Your task to perform on an android device: turn on translation in the chrome app Image 0: 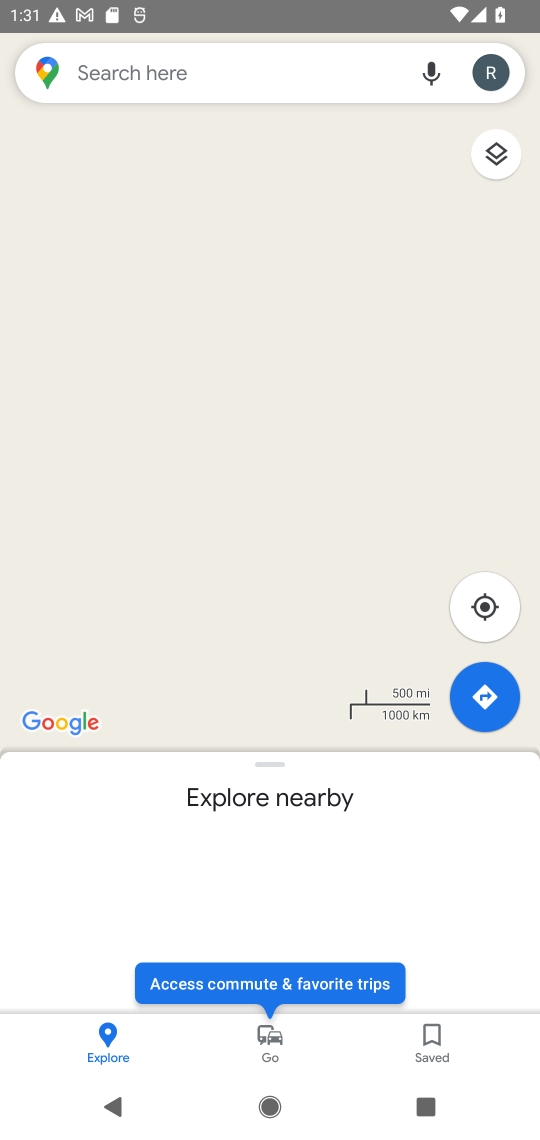
Step 0: press home button
Your task to perform on an android device: turn on translation in the chrome app Image 1: 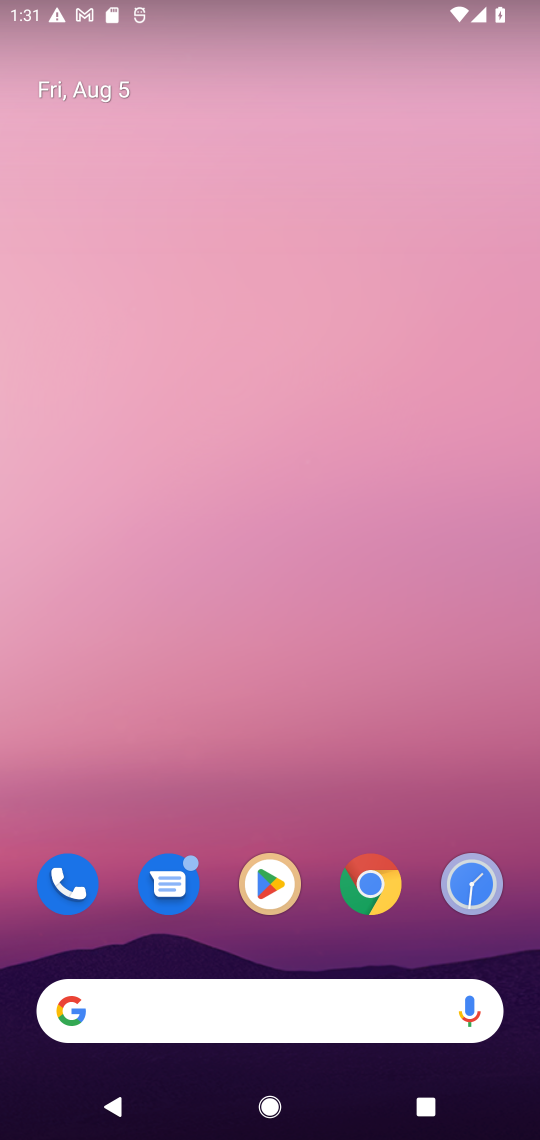
Step 1: drag from (409, 756) to (276, 14)
Your task to perform on an android device: turn on translation in the chrome app Image 2: 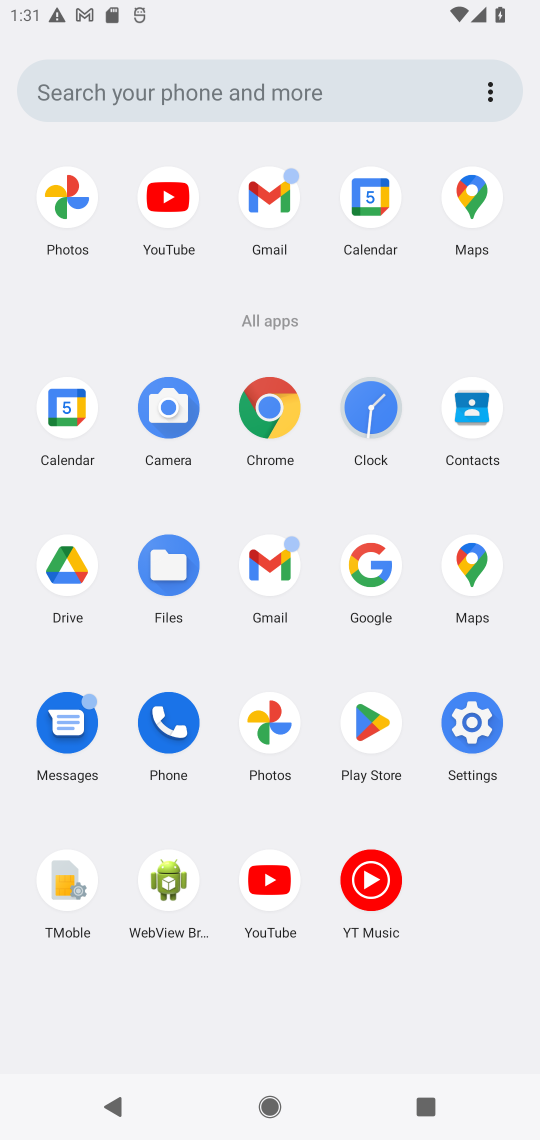
Step 2: click (257, 414)
Your task to perform on an android device: turn on translation in the chrome app Image 3: 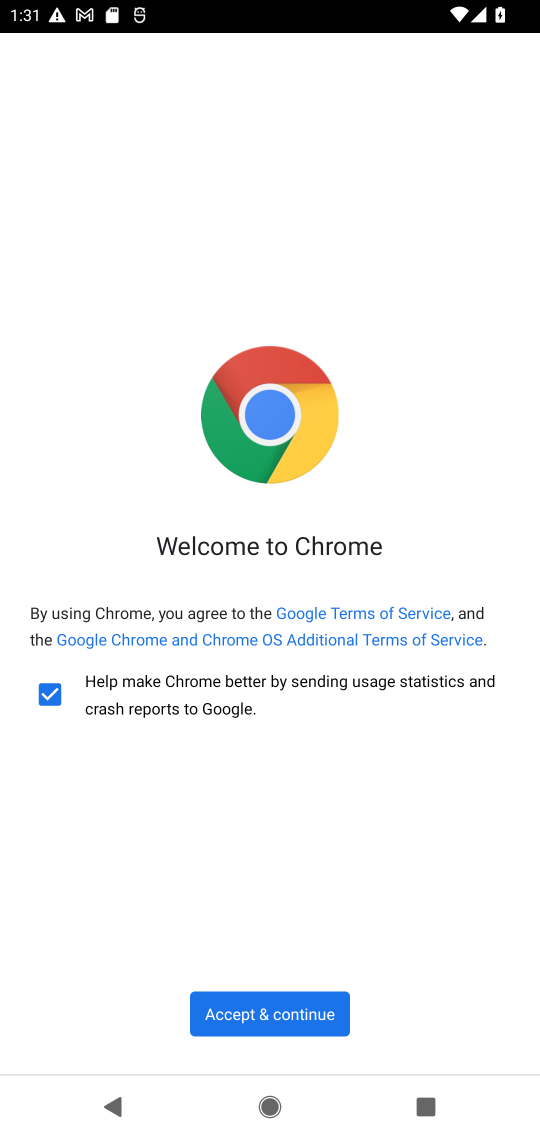
Step 3: click (304, 1019)
Your task to perform on an android device: turn on translation in the chrome app Image 4: 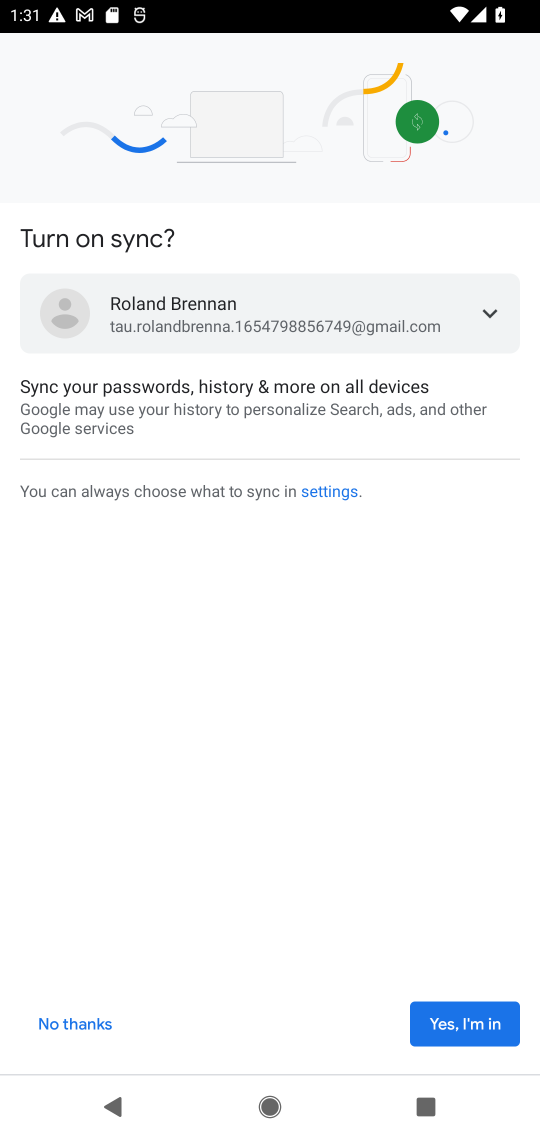
Step 4: click (482, 1028)
Your task to perform on an android device: turn on translation in the chrome app Image 5: 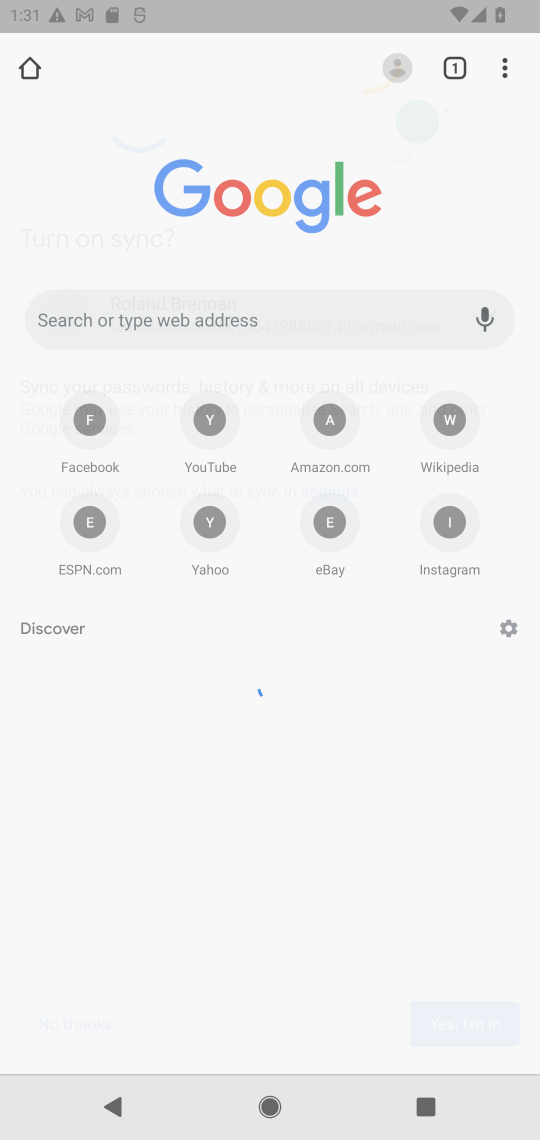
Step 5: click (482, 1028)
Your task to perform on an android device: turn on translation in the chrome app Image 6: 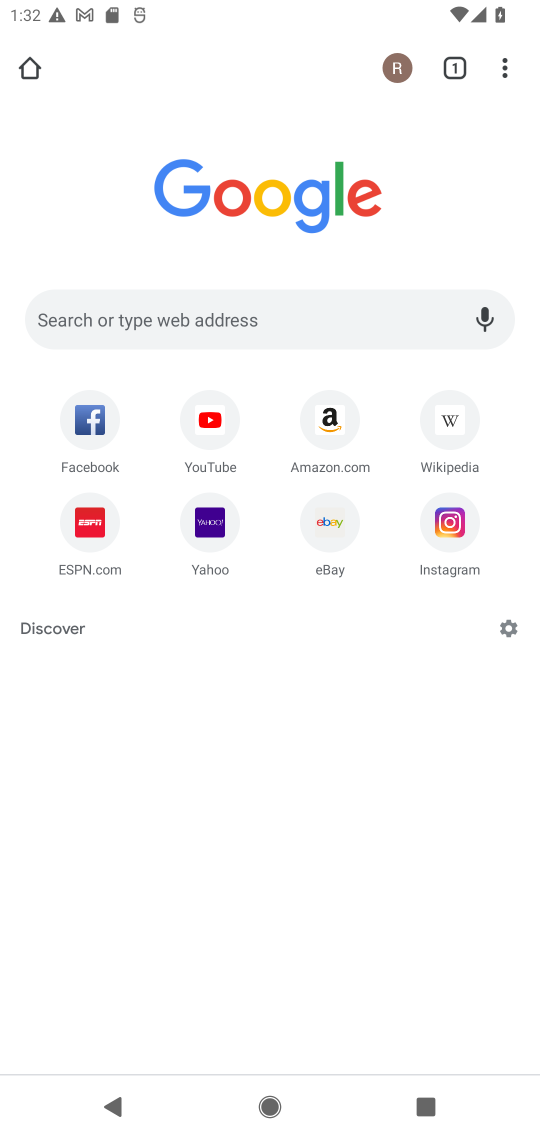
Step 6: click (508, 64)
Your task to perform on an android device: turn on translation in the chrome app Image 7: 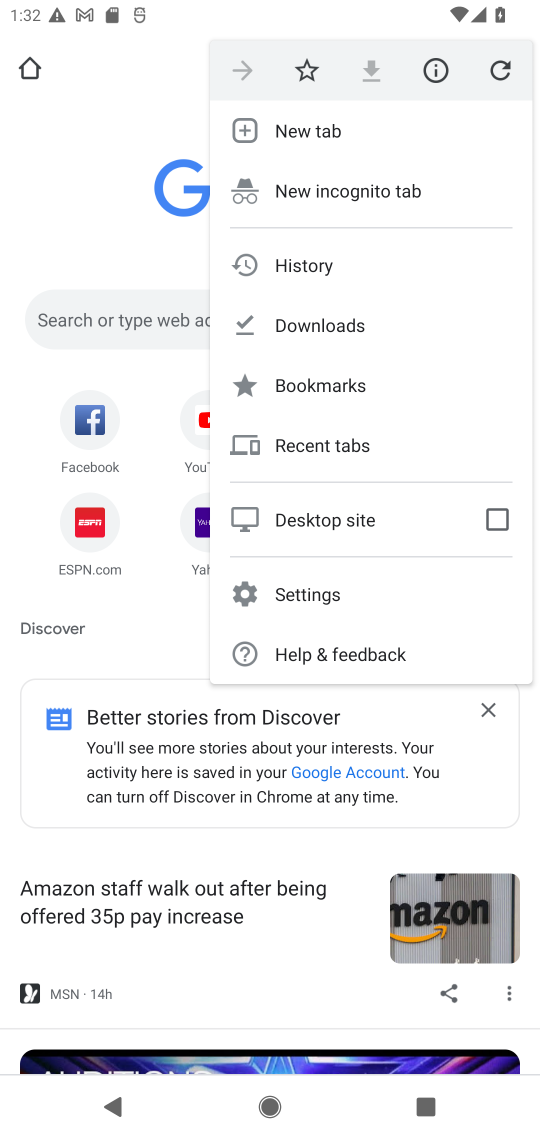
Step 7: click (277, 588)
Your task to perform on an android device: turn on translation in the chrome app Image 8: 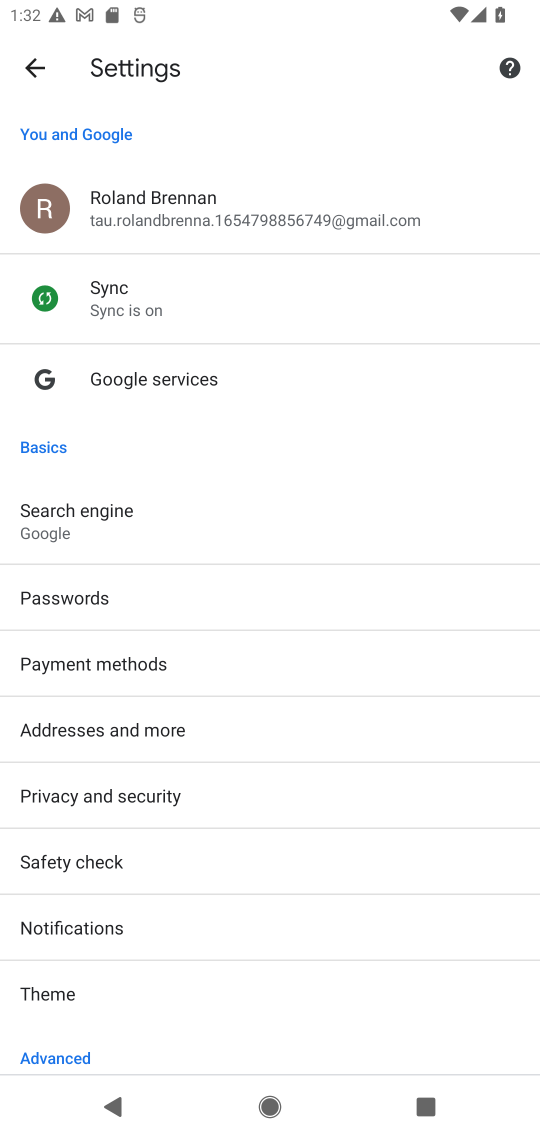
Step 8: drag from (198, 1040) to (169, 314)
Your task to perform on an android device: turn on translation in the chrome app Image 9: 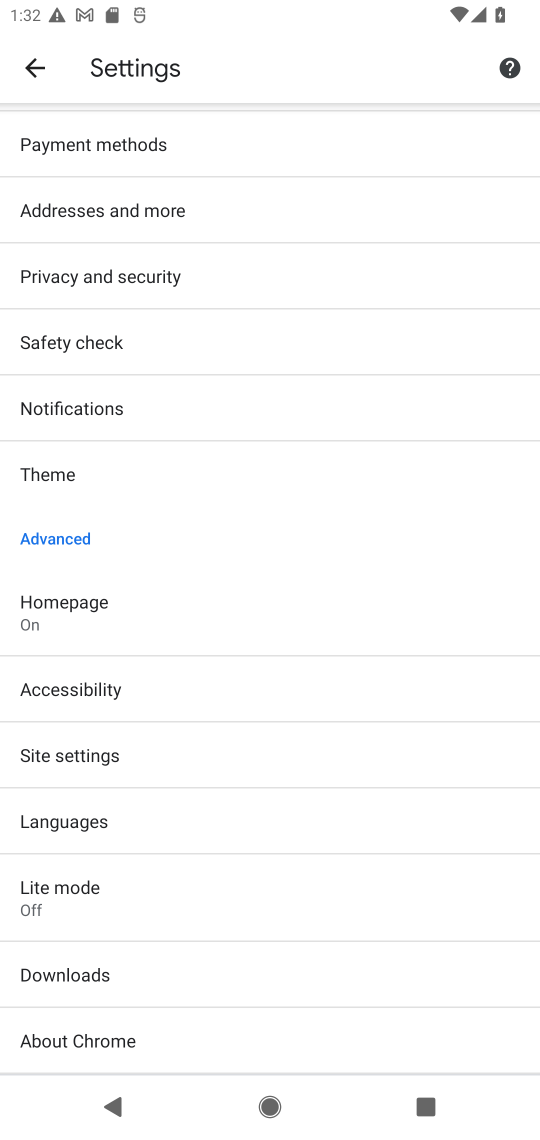
Step 9: click (118, 825)
Your task to perform on an android device: turn on translation in the chrome app Image 10: 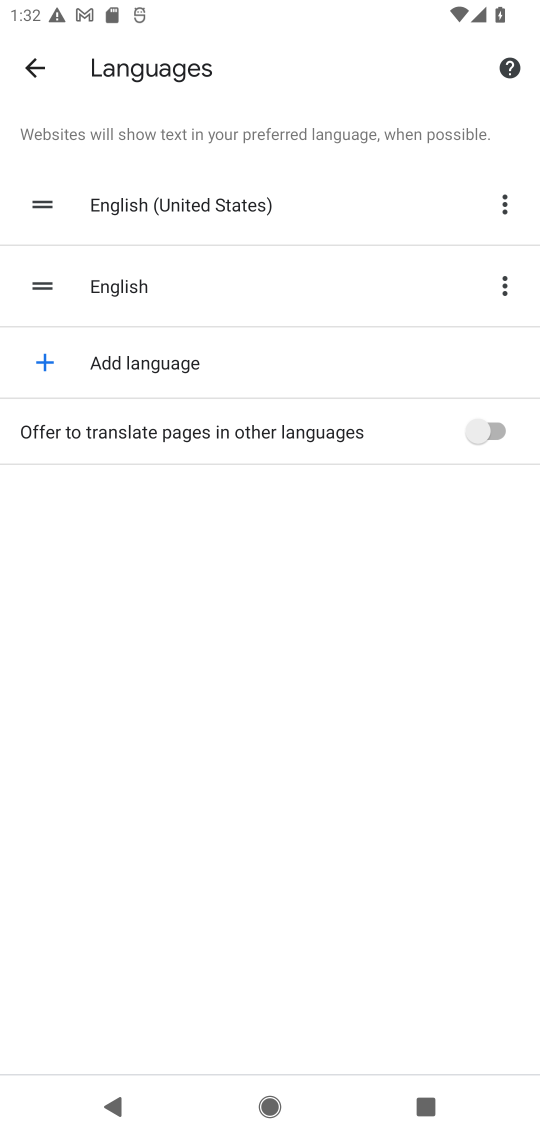
Step 10: click (474, 441)
Your task to perform on an android device: turn on translation in the chrome app Image 11: 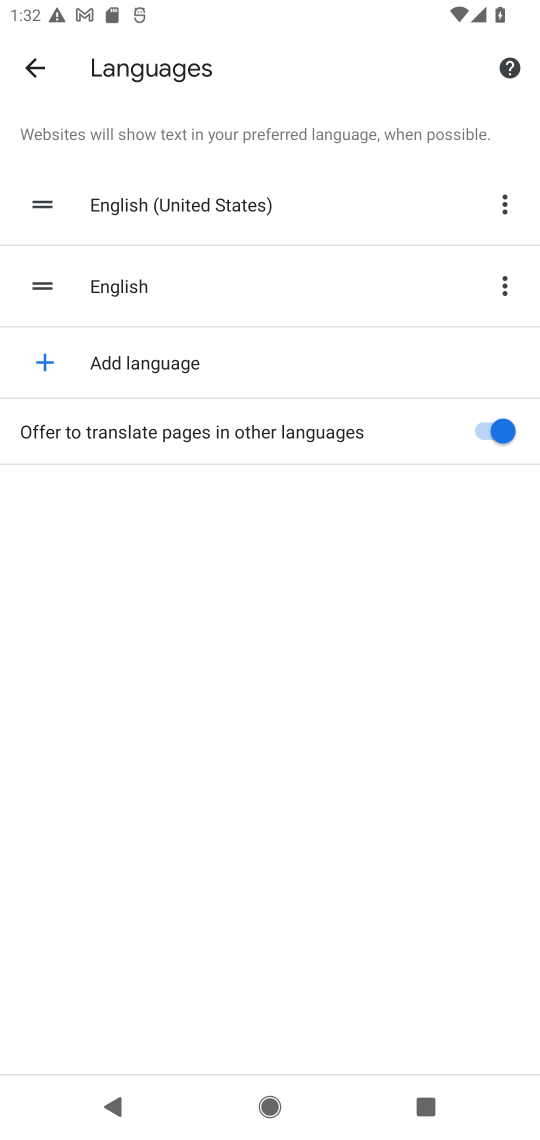
Step 11: task complete